Your task to perform on an android device: Search for usb-a on amazon, select the first entry, add it to the cart, then select checkout. Image 0: 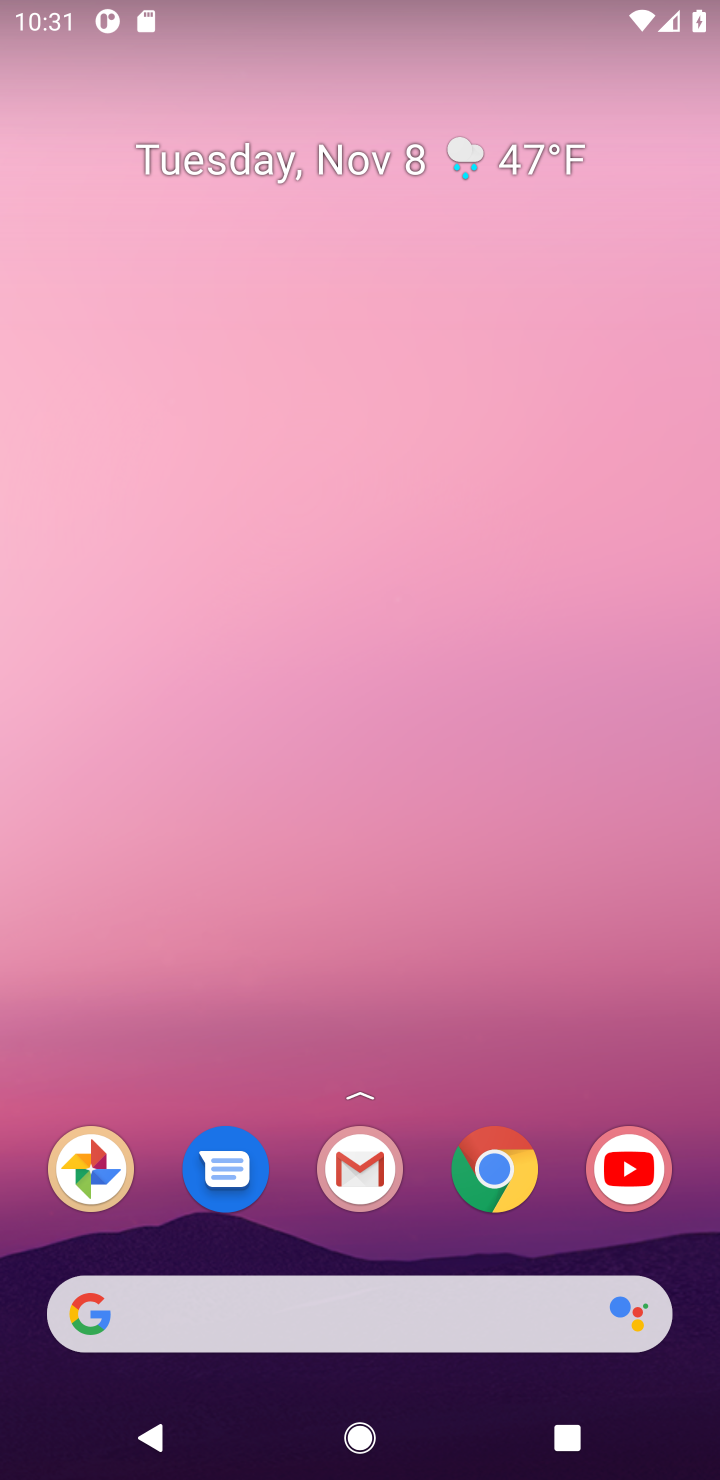
Step 0: click (473, 1163)
Your task to perform on an android device: Search for usb-a on amazon, select the first entry, add it to the cart, then select checkout. Image 1: 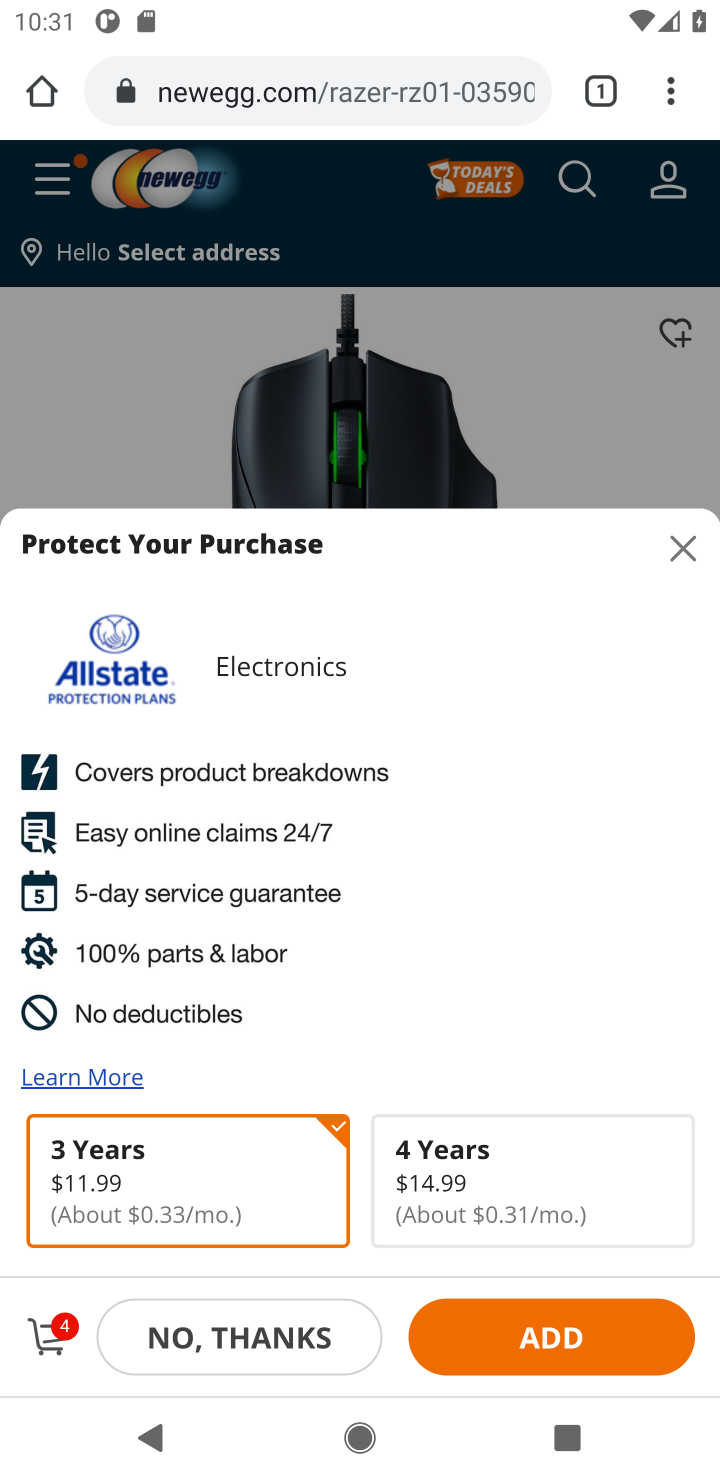
Step 1: click (675, 550)
Your task to perform on an android device: Search for usb-a on amazon, select the first entry, add it to the cart, then select checkout. Image 2: 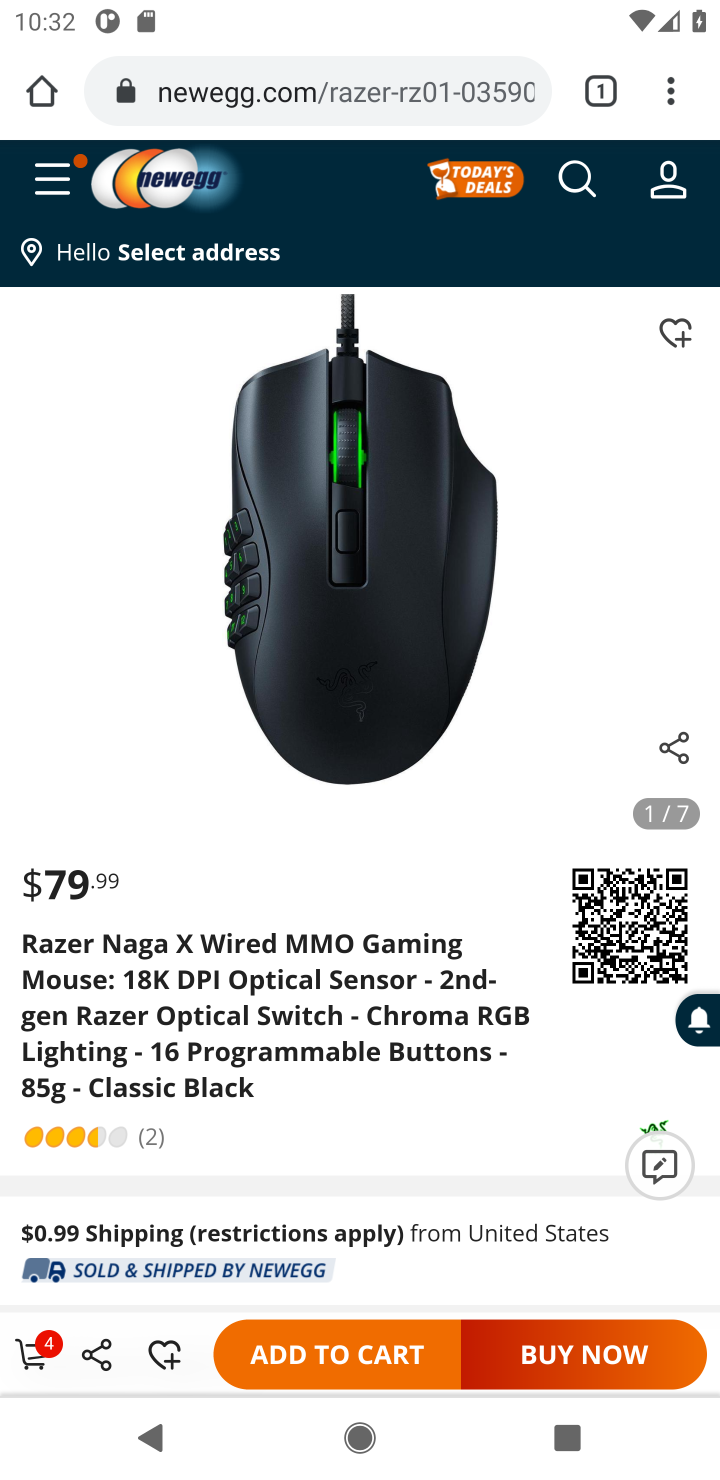
Step 2: click (584, 173)
Your task to perform on an android device: Search for usb-a on amazon, select the first entry, add it to the cart, then select checkout. Image 3: 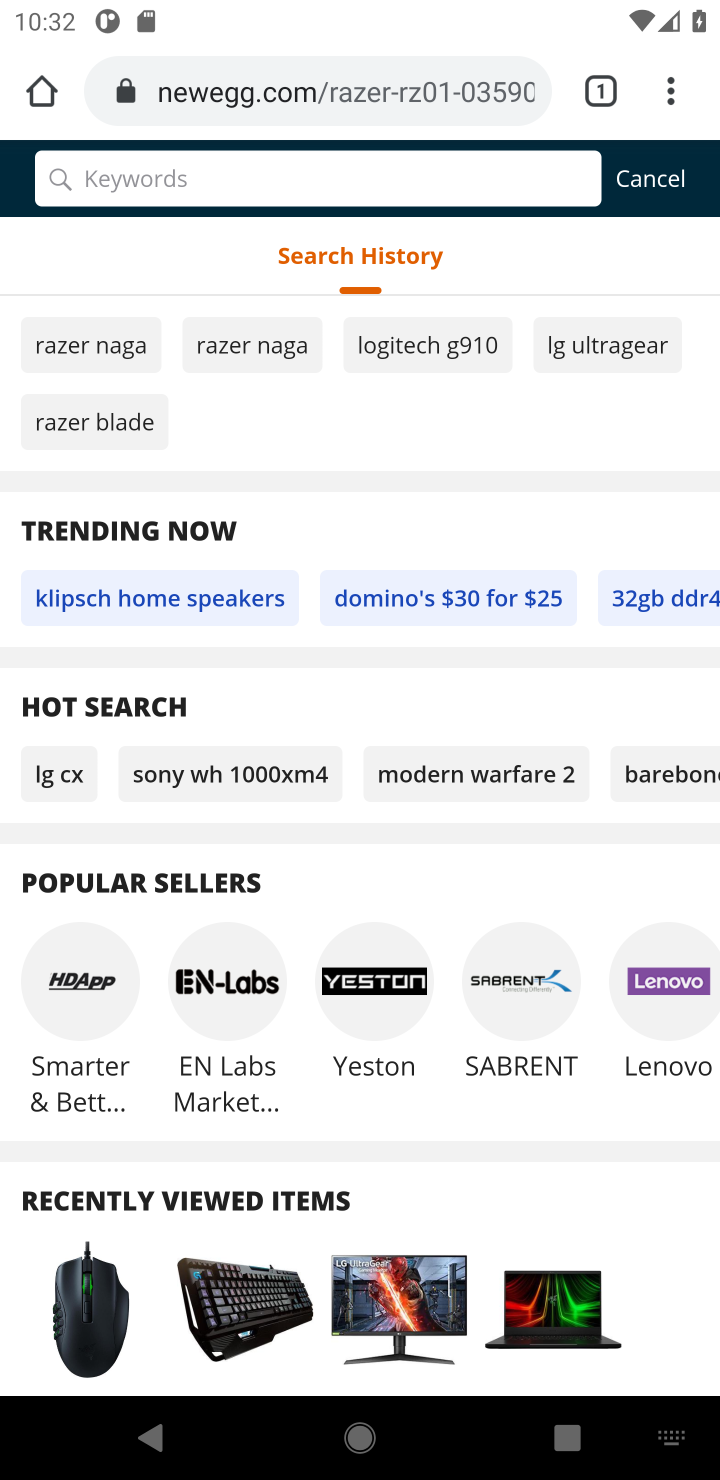
Step 3: click (428, 169)
Your task to perform on an android device: Search for usb-a on amazon, select the first entry, add it to the cart, then select checkout. Image 4: 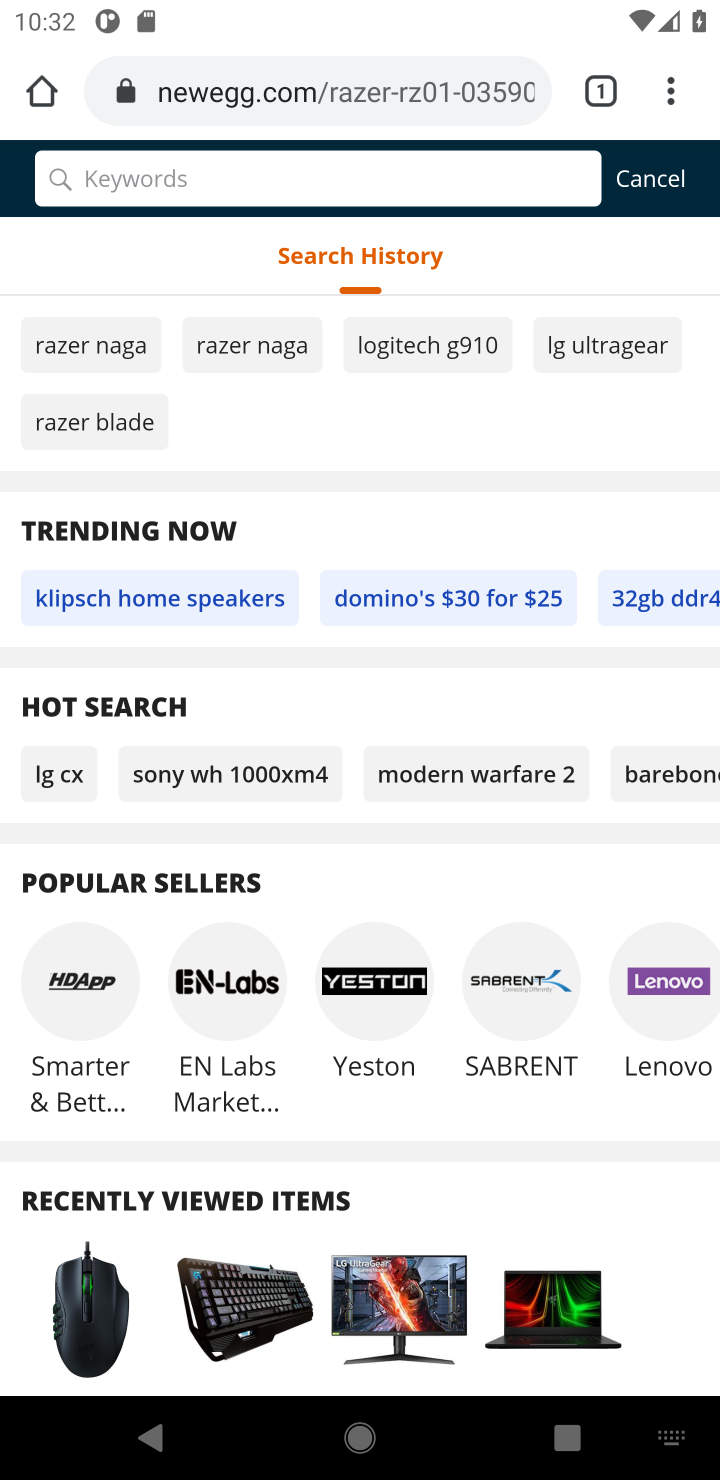
Step 4: click (409, 175)
Your task to perform on an android device: Search for usb-a on amazon, select the first entry, add it to the cart, then select checkout. Image 5: 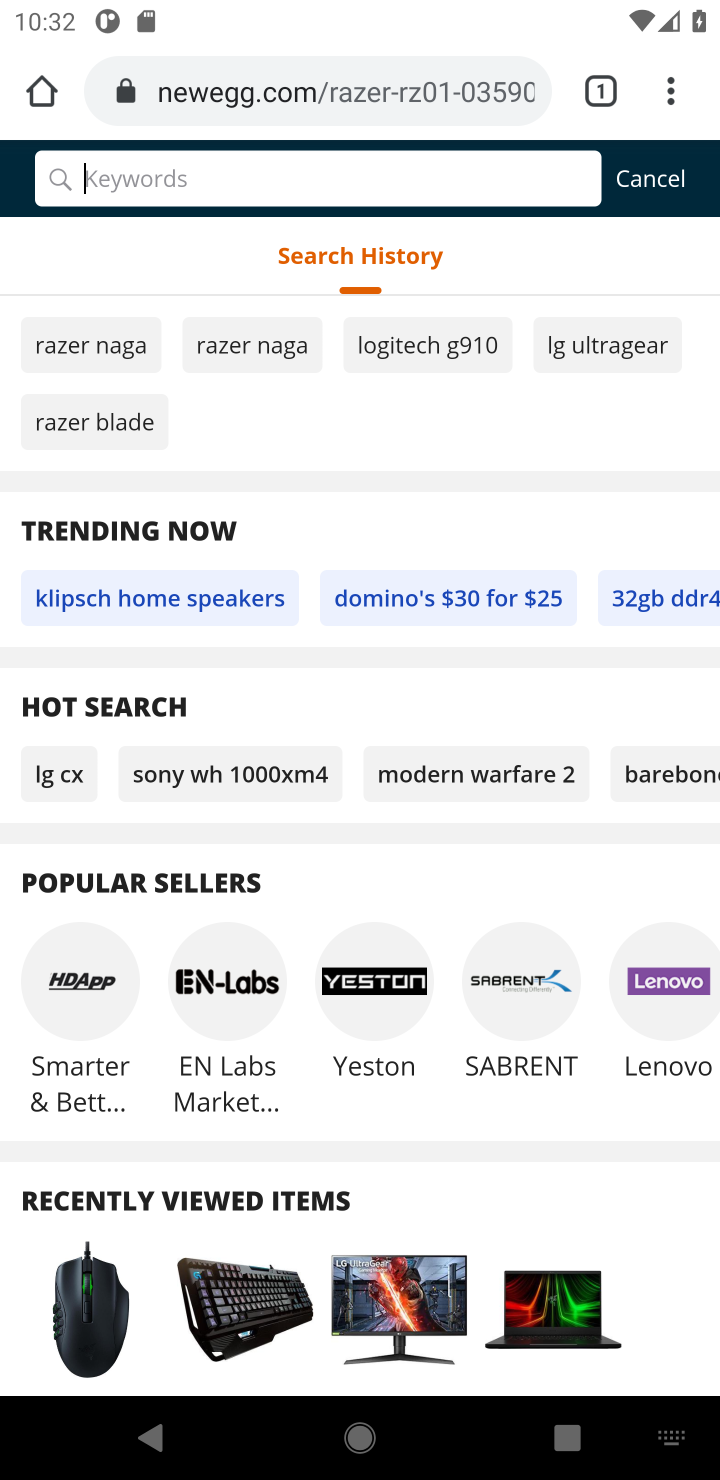
Step 5: click (367, 81)
Your task to perform on an android device: Search for usb-a on amazon, select the first entry, add it to the cart, then select checkout. Image 6: 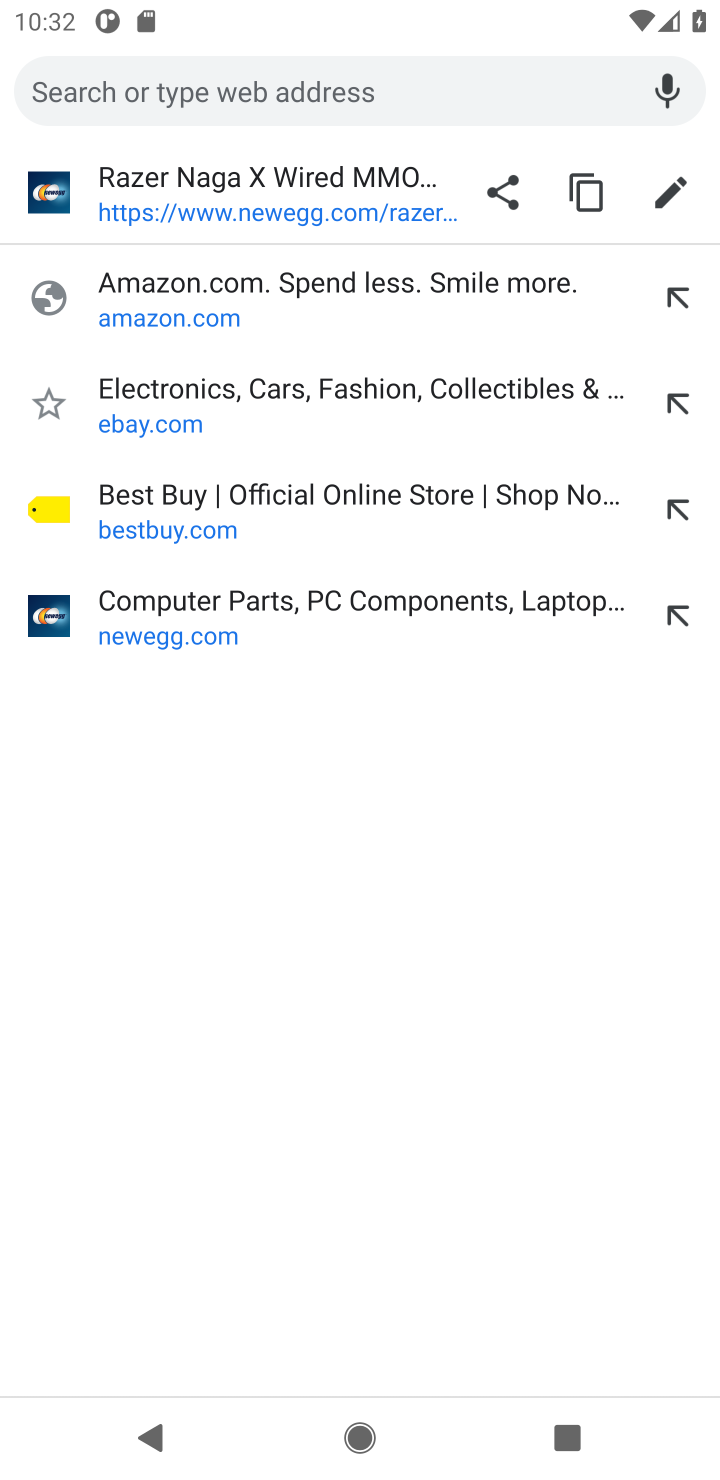
Step 6: type "amazon"
Your task to perform on an android device: Search for usb-a on amazon, select the first entry, add it to the cart, then select checkout. Image 7: 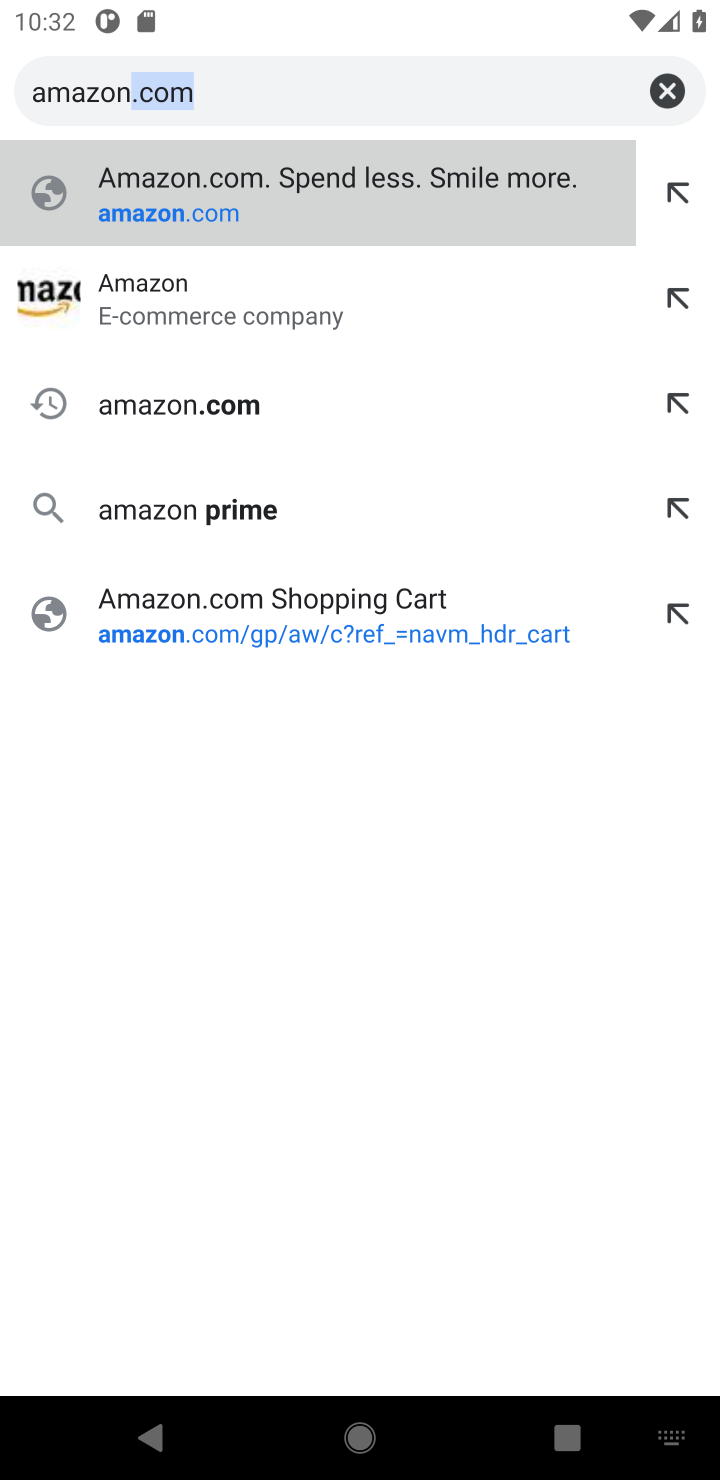
Step 7: press enter
Your task to perform on an android device: Search for usb-a on amazon, select the first entry, add it to the cart, then select checkout. Image 8: 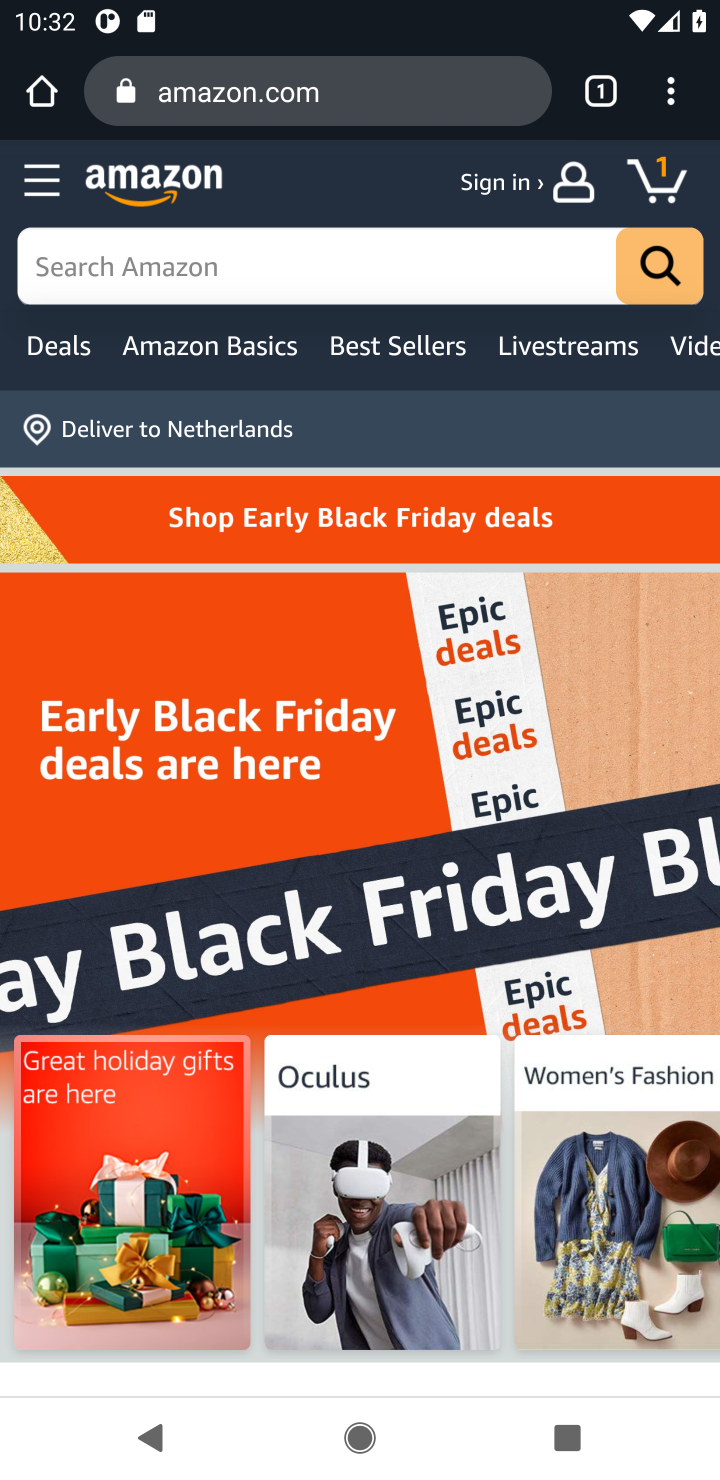
Step 8: click (433, 256)
Your task to perform on an android device: Search for usb-a on amazon, select the first entry, add it to the cart, then select checkout. Image 9: 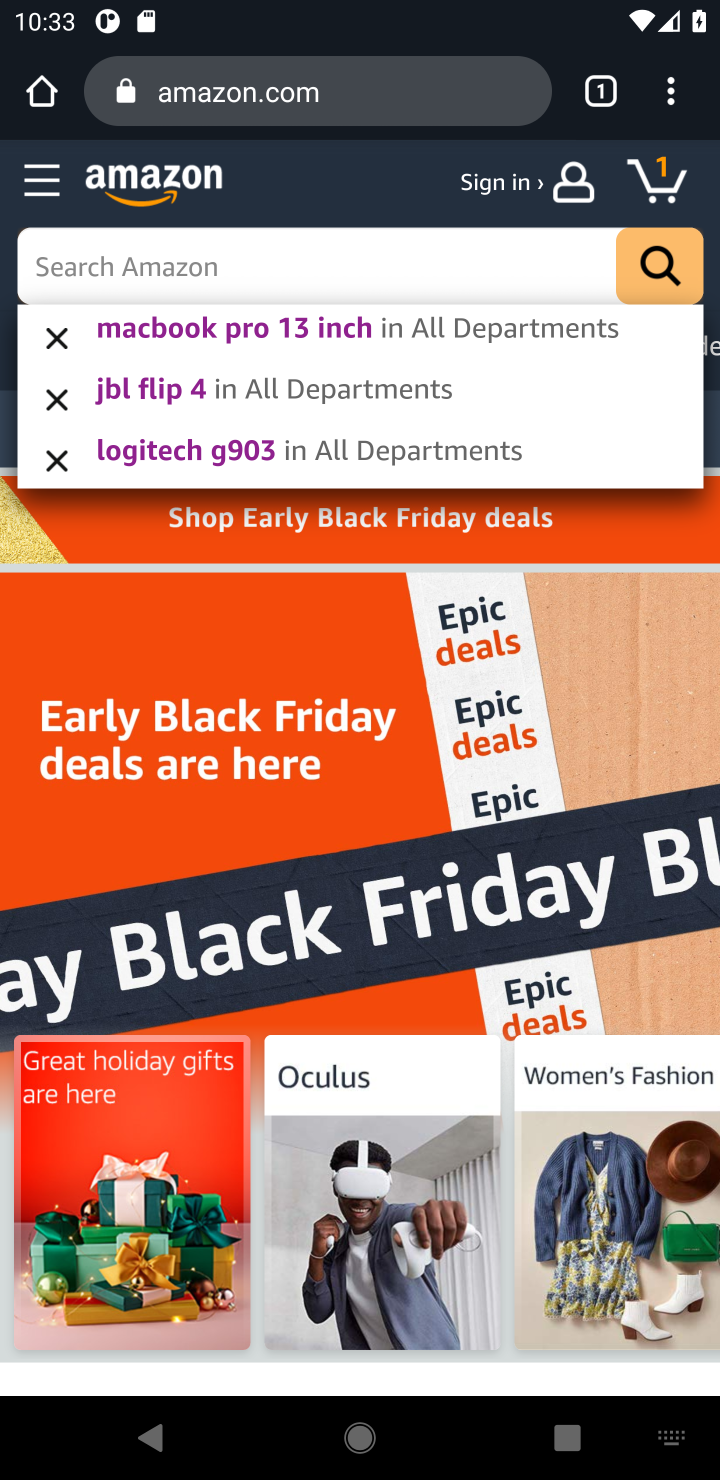
Step 9: press enter
Your task to perform on an android device: Search for usb-a on amazon, select the first entry, add it to the cart, then select checkout. Image 10: 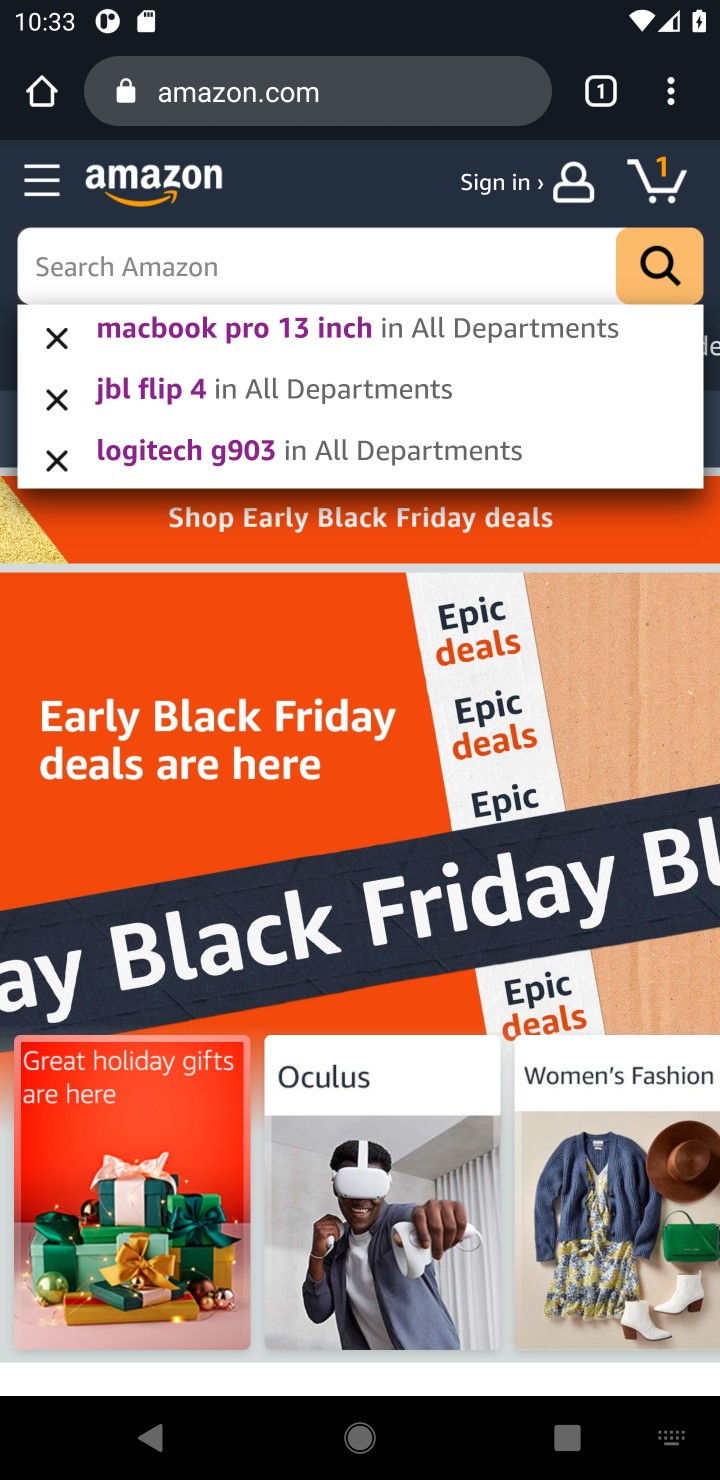
Step 10: type "usb-a"
Your task to perform on an android device: Search for usb-a on amazon, select the first entry, add it to the cart, then select checkout. Image 11: 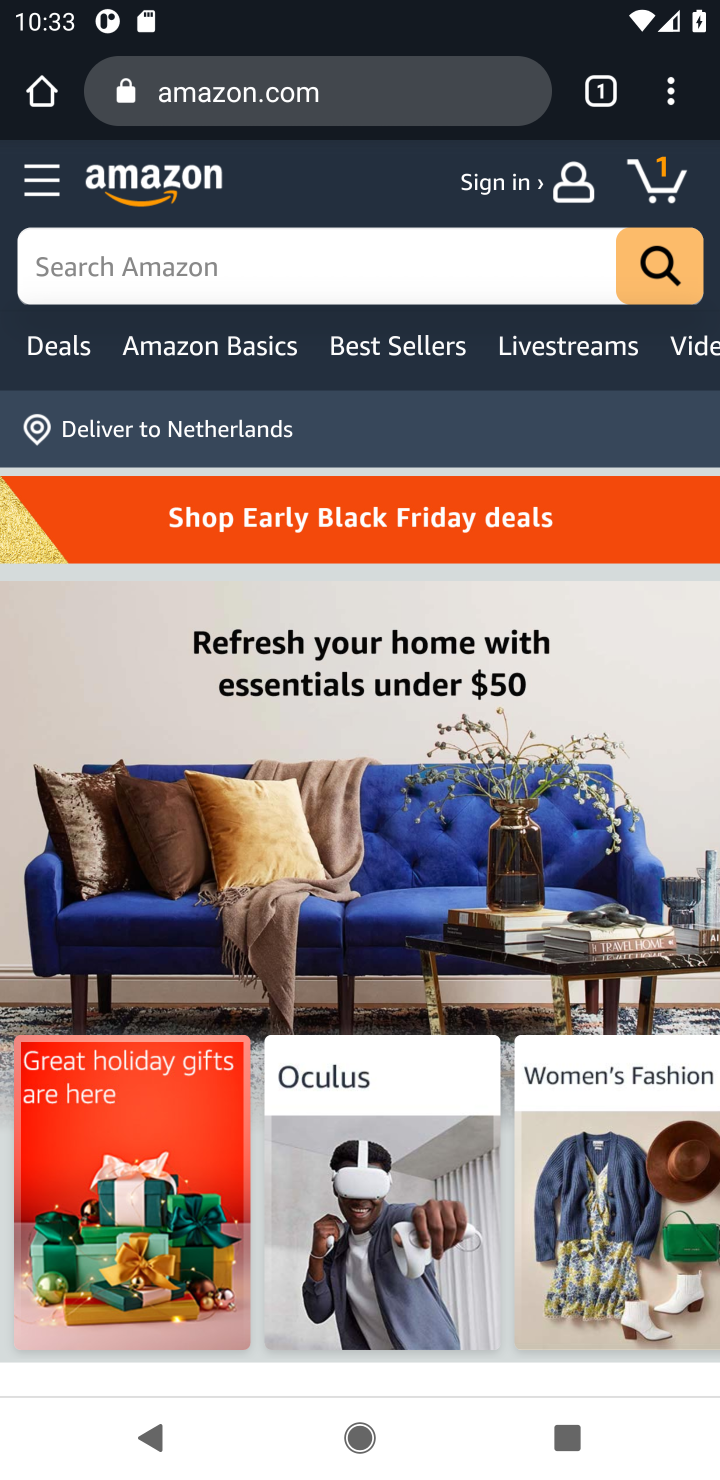
Step 11: click (443, 260)
Your task to perform on an android device: Search for usb-a on amazon, select the first entry, add it to the cart, then select checkout. Image 12: 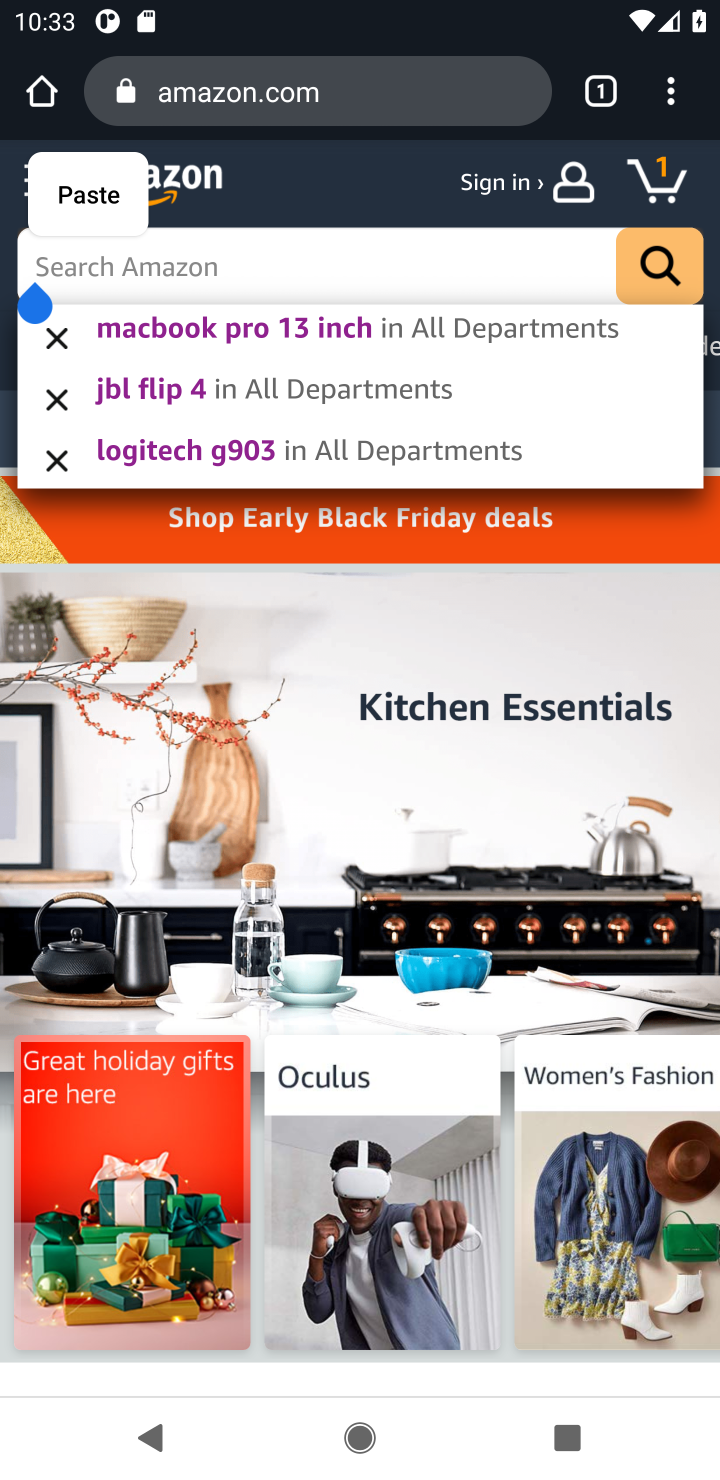
Step 12: type "usb-a"
Your task to perform on an android device: Search for usb-a on amazon, select the first entry, add it to the cart, then select checkout. Image 13: 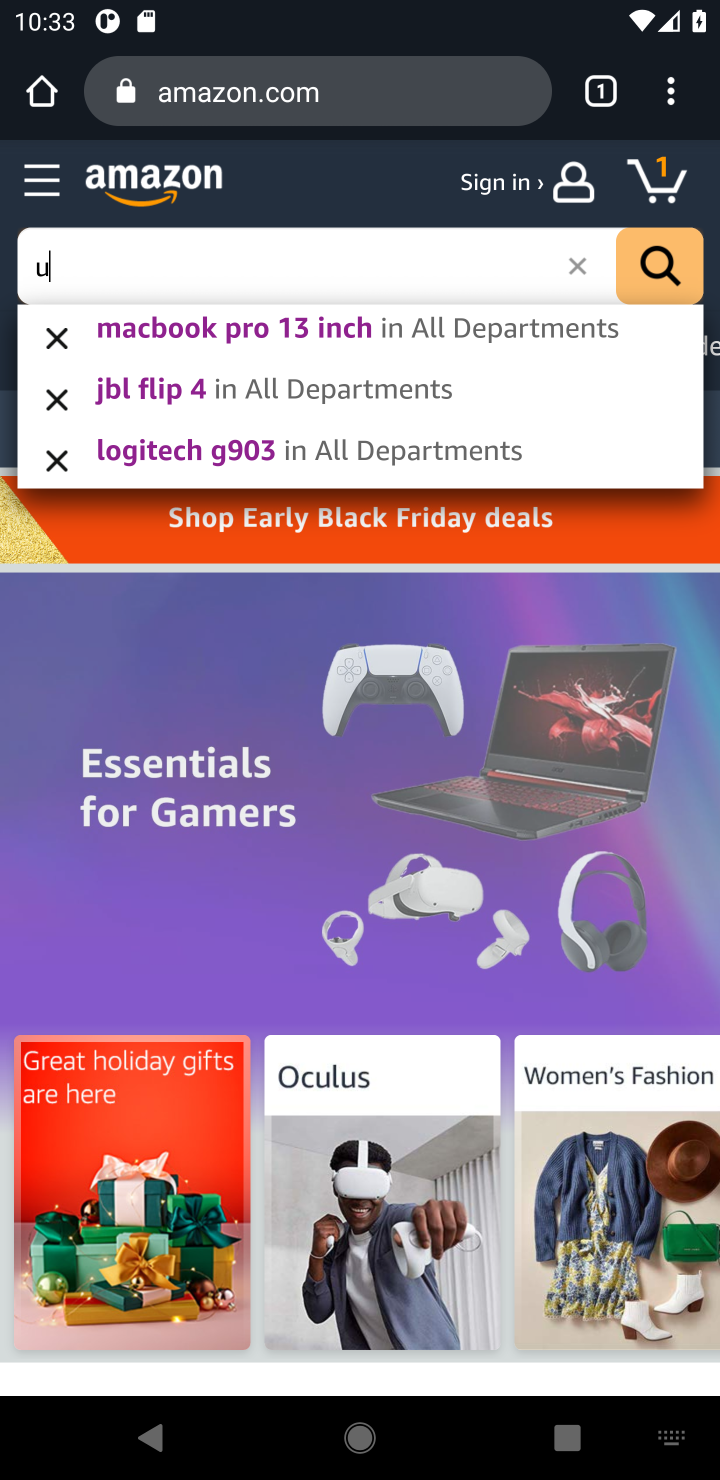
Step 13: press enter
Your task to perform on an android device: Search for usb-a on amazon, select the first entry, add it to the cart, then select checkout. Image 14: 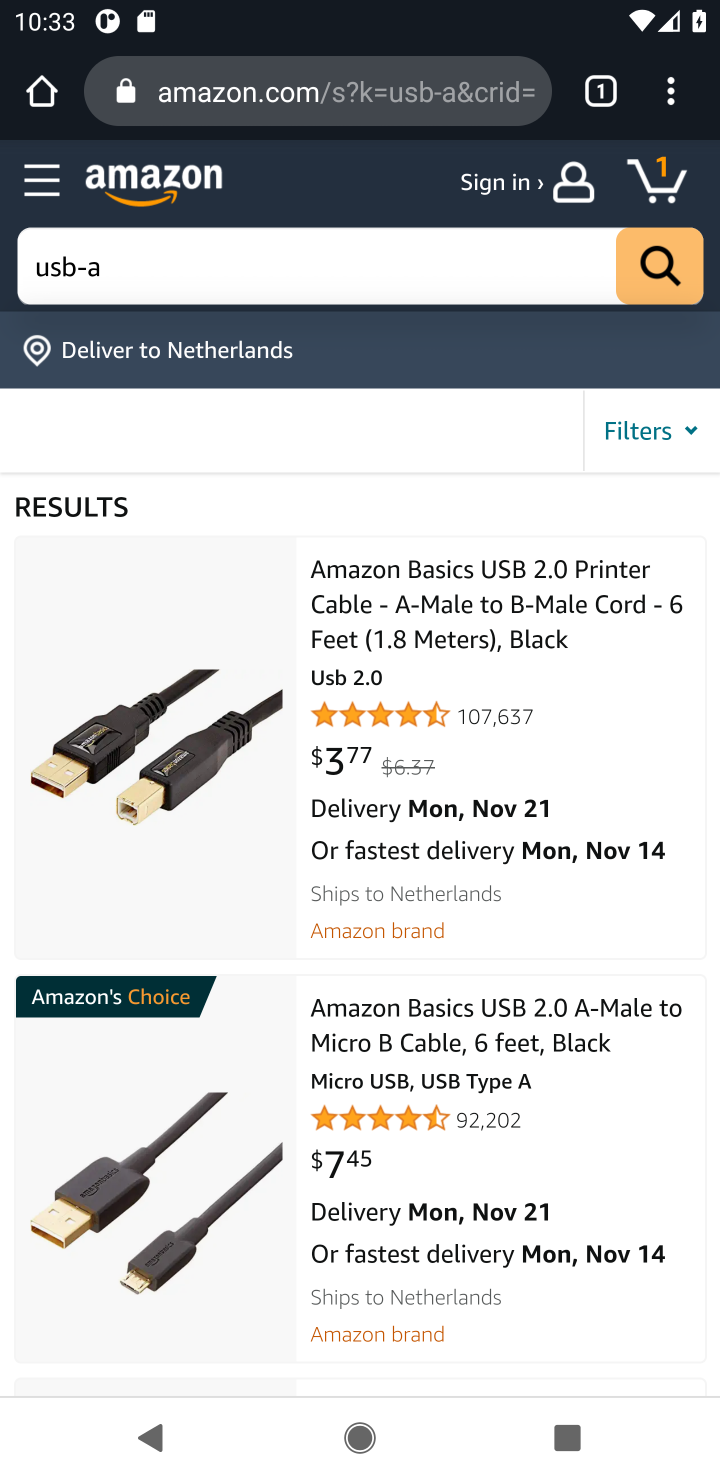
Step 14: click (186, 710)
Your task to perform on an android device: Search for usb-a on amazon, select the first entry, add it to the cart, then select checkout. Image 15: 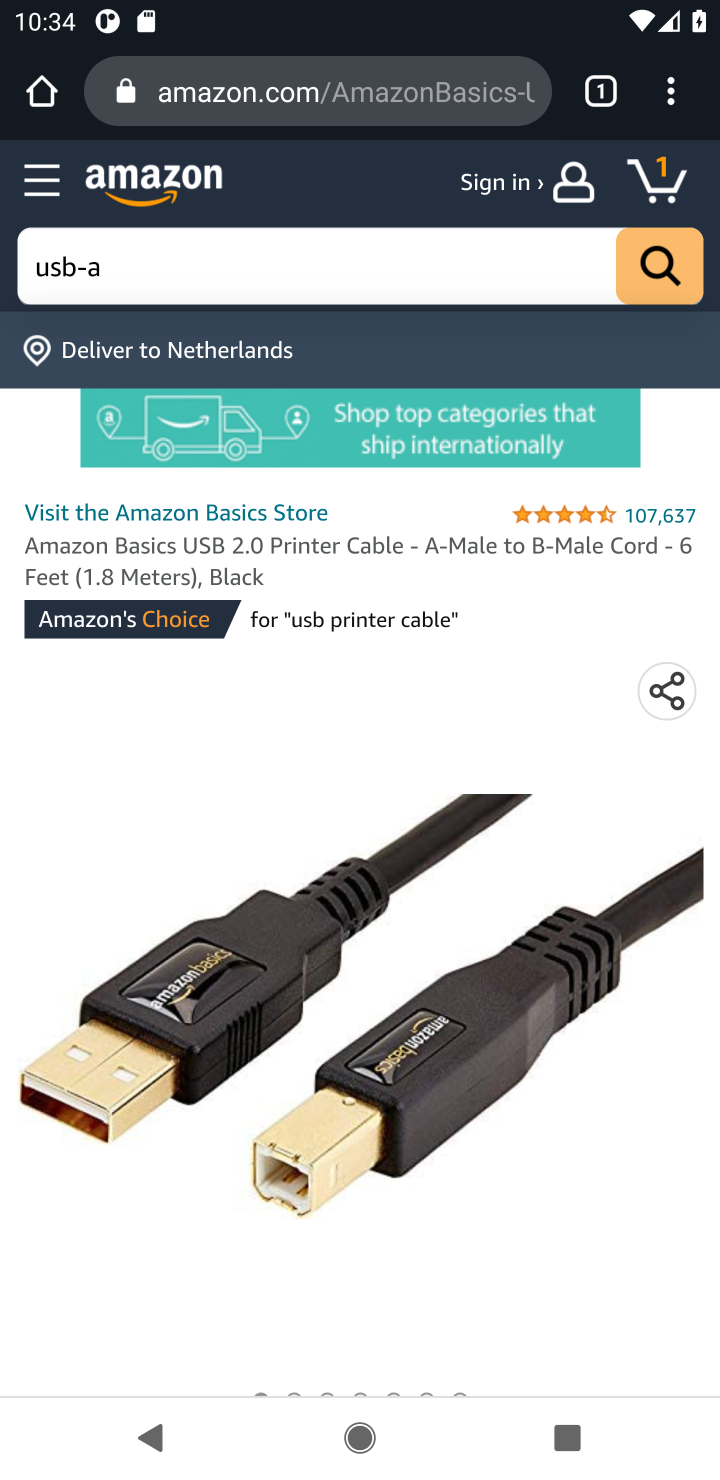
Step 15: drag from (336, 1138) to (483, 675)
Your task to perform on an android device: Search for usb-a on amazon, select the first entry, add it to the cart, then select checkout. Image 16: 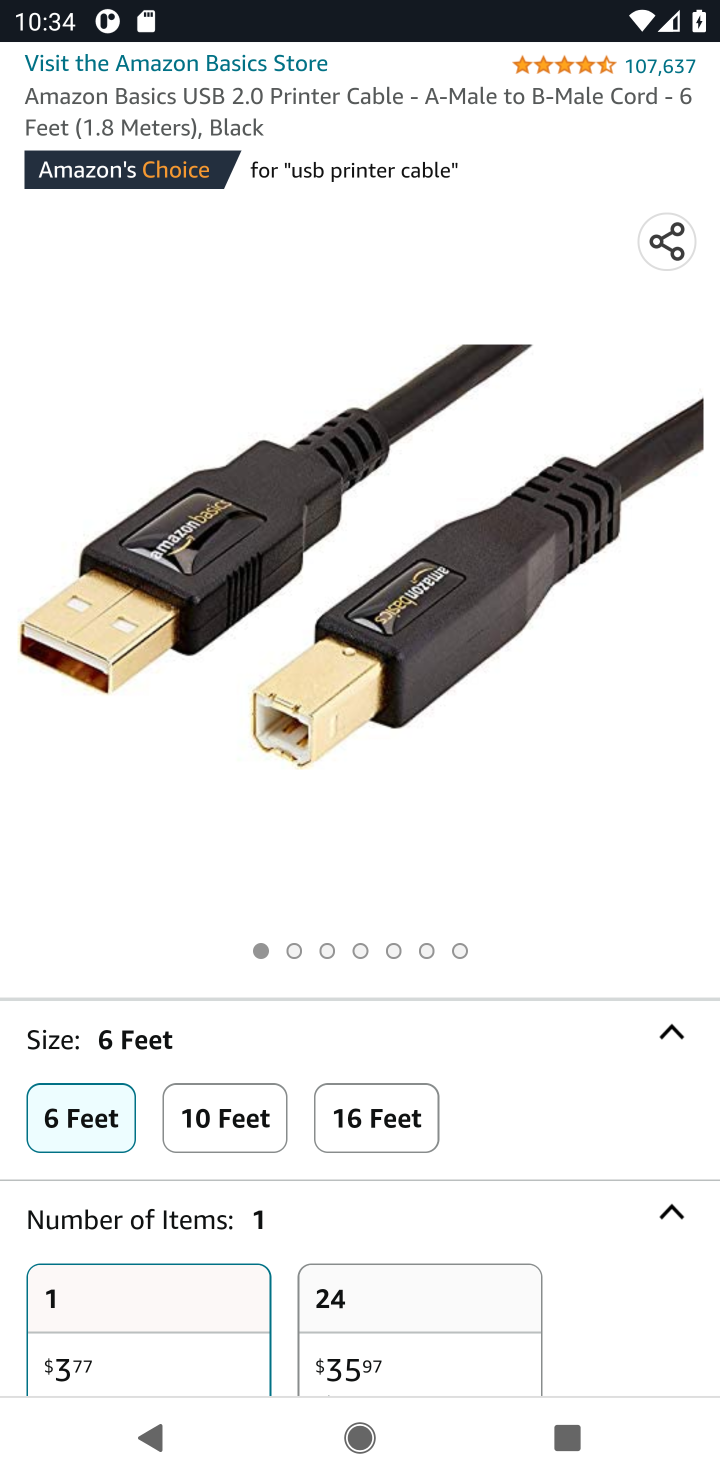
Step 16: drag from (579, 988) to (669, 350)
Your task to perform on an android device: Search for usb-a on amazon, select the first entry, add it to the cart, then select checkout. Image 17: 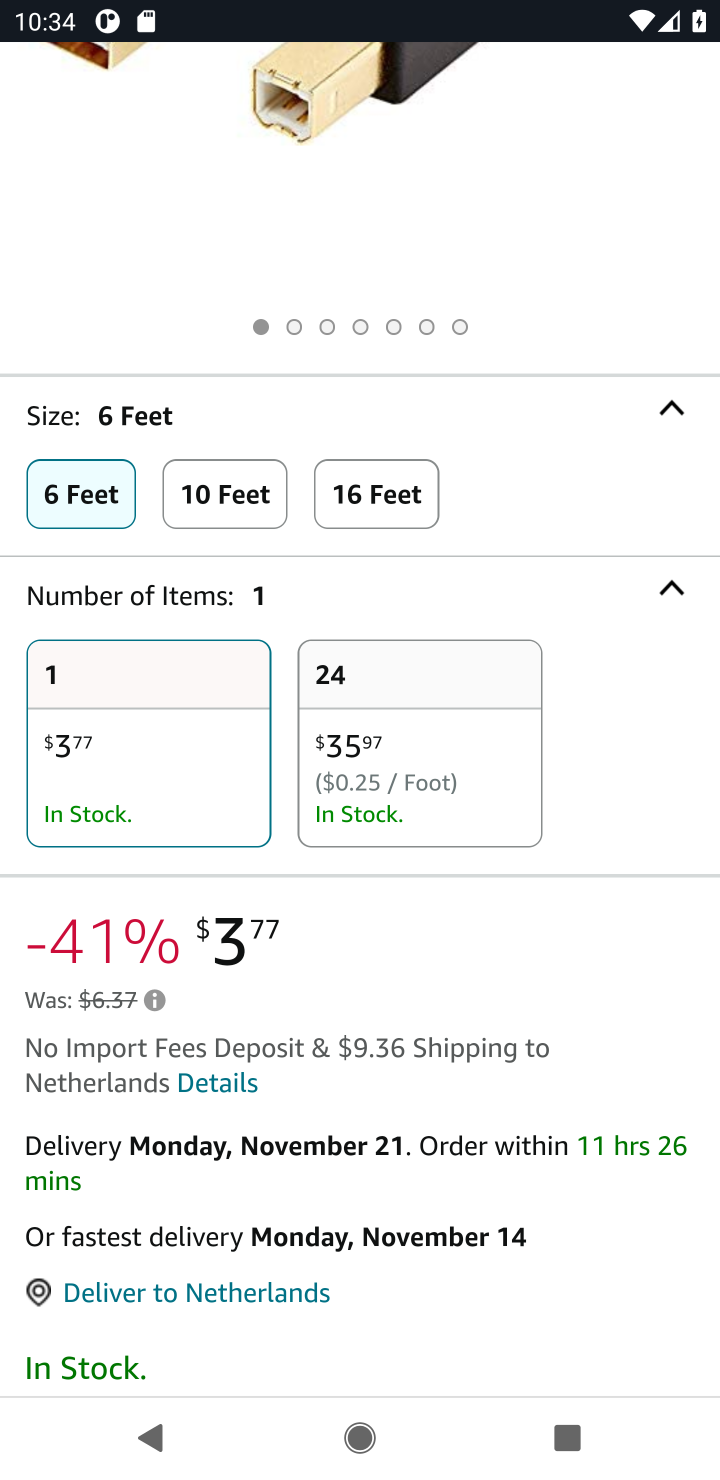
Step 17: drag from (581, 882) to (618, 647)
Your task to perform on an android device: Search for usb-a on amazon, select the first entry, add it to the cart, then select checkout. Image 18: 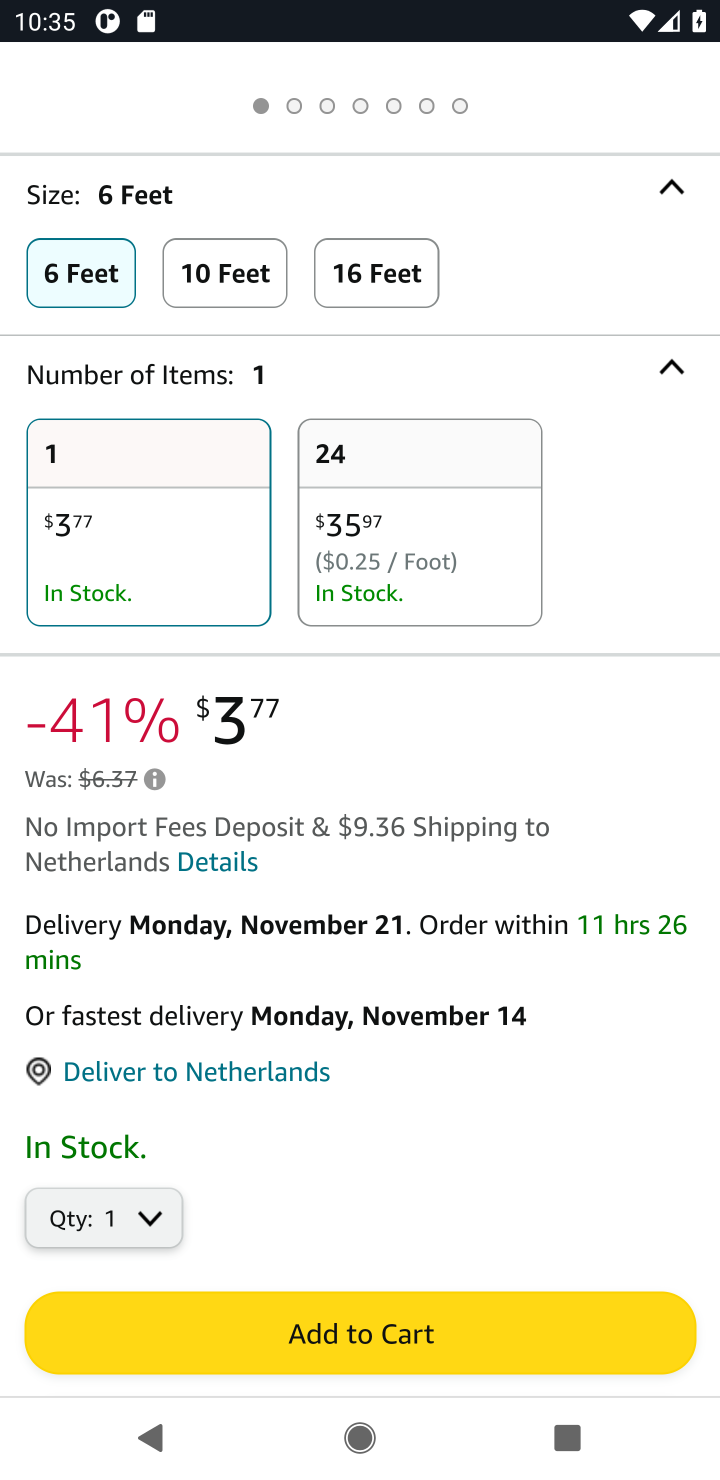
Step 18: click (476, 1318)
Your task to perform on an android device: Search for usb-a on amazon, select the first entry, add it to the cart, then select checkout. Image 19: 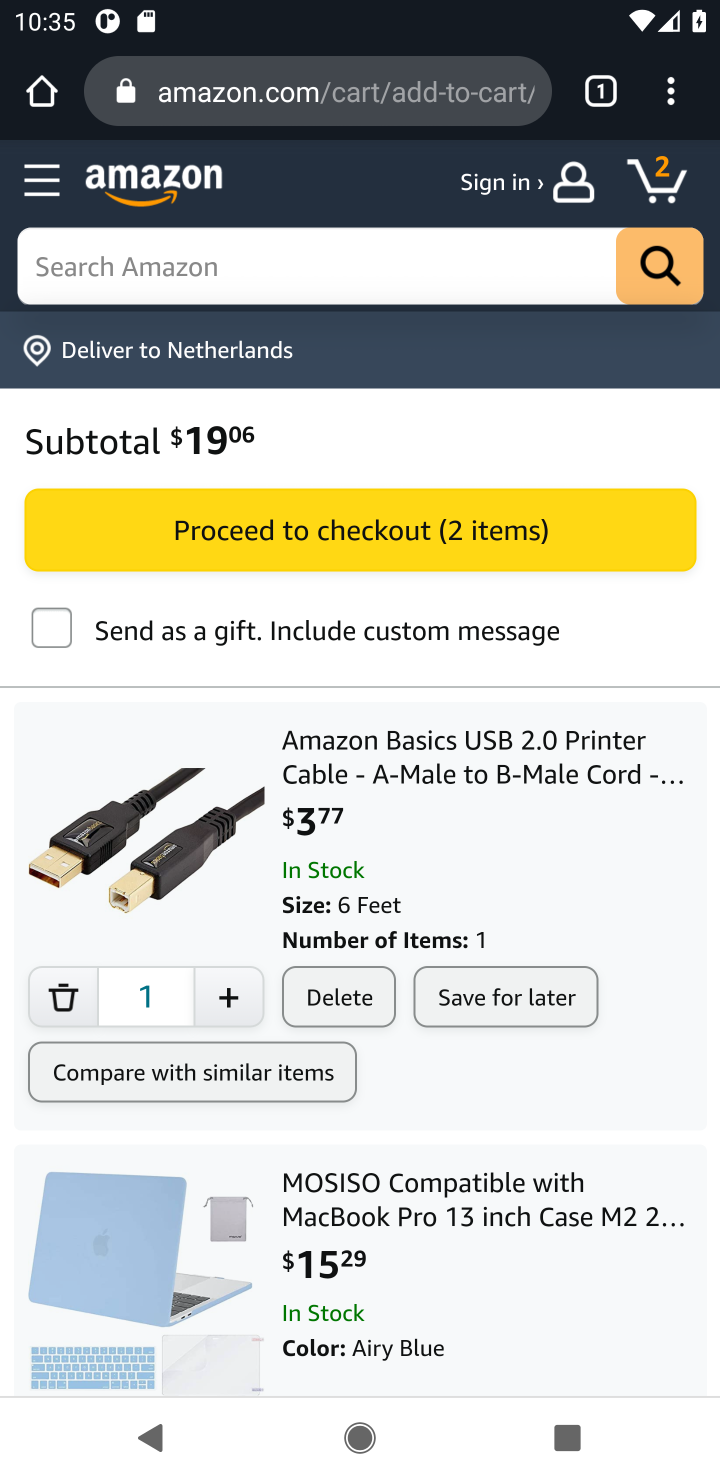
Step 19: click (423, 524)
Your task to perform on an android device: Search for usb-a on amazon, select the first entry, add it to the cart, then select checkout. Image 20: 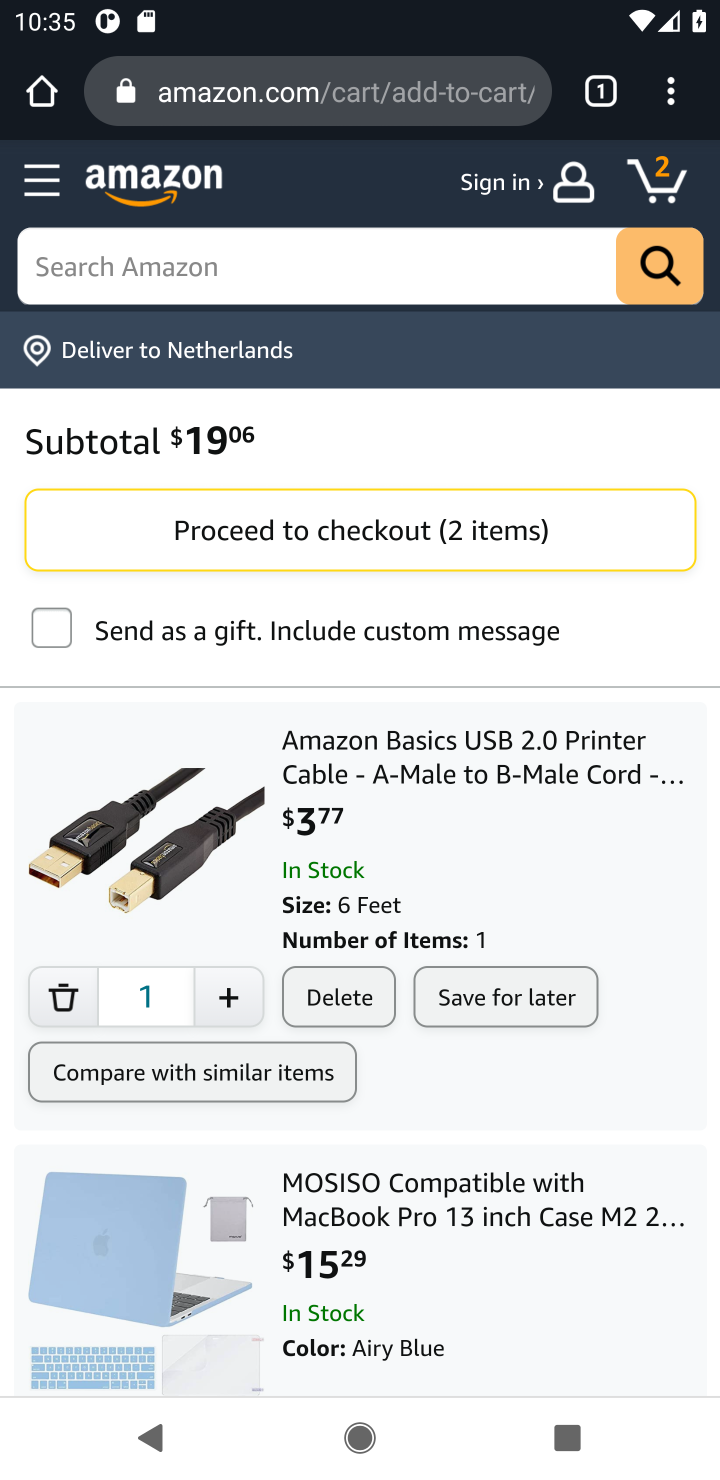
Step 20: task complete